Your task to perform on an android device: turn on wifi Image 0: 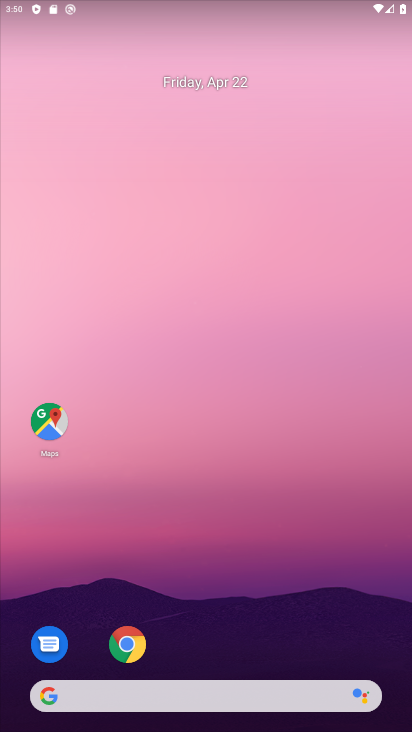
Step 0: click (136, 648)
Your task to perform on an android device: turn on wifi Image 1: 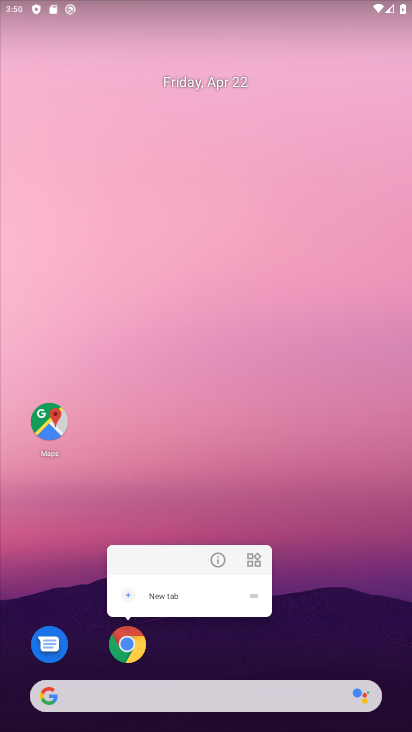
Step 1: drag from (246, 541) to (293, 277)
Your task to perform on an android device: turn on wifi Image 2: 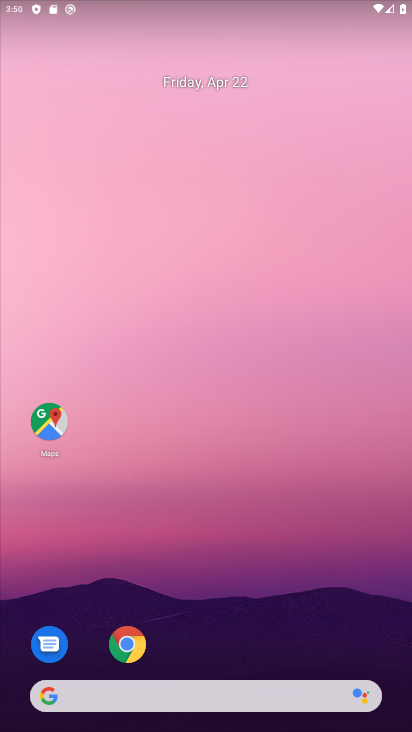
Step 2: drag from (188, 671) to (246, 356)
Your task to perform on an android device: turn on wifi Image 3: 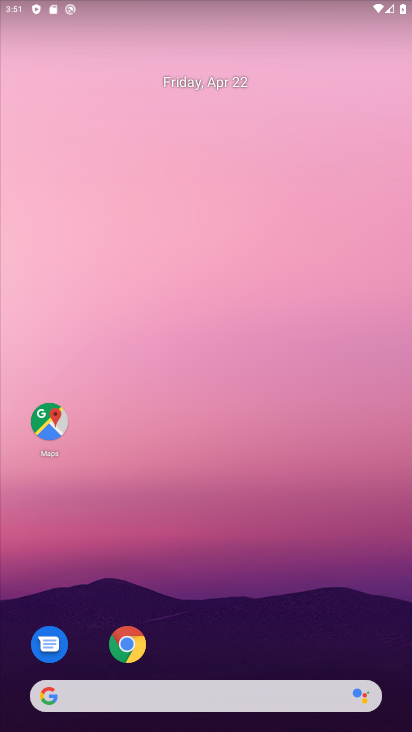
Step 3: drag from (195, 655) to (257, 360)
Your task to perform on an android device: turn on wifi Image 4: 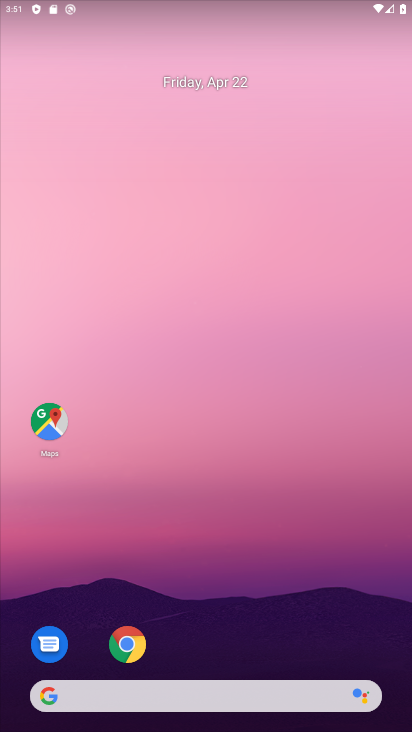
Step 4: drag from (225, 603) to (276, 296)
Your task to perform on an android device: turn on wifi Image 5: 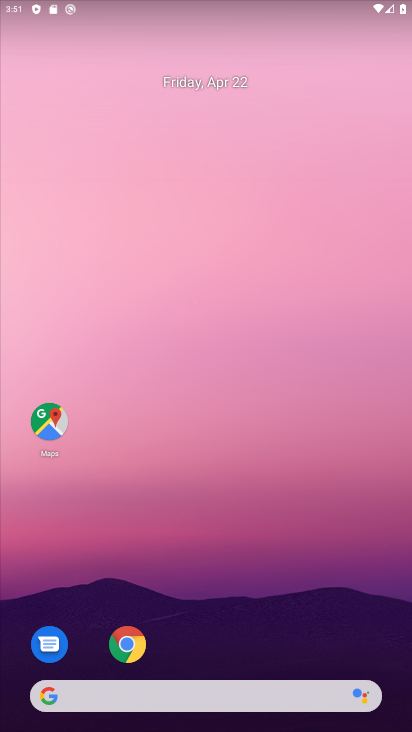
Step 5: drag from (219, 609) to (263, 263)
Your task to perform on an android device: turn on wifi Image 6: 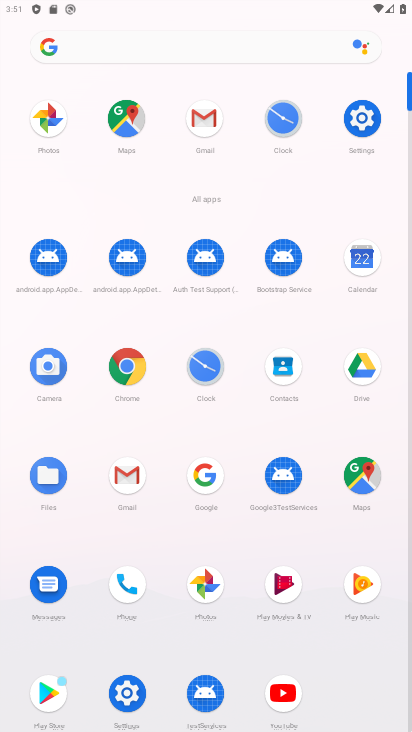
Step 6: click (370, 119)
Your task to perform on an android device: turn on wifi Image 7: 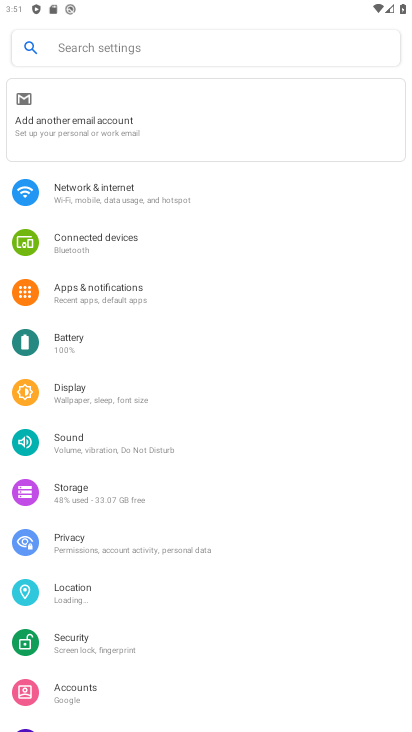
Step 7: click (104, 188)
Your task to perform on an android device: turn on wifi Image 8: 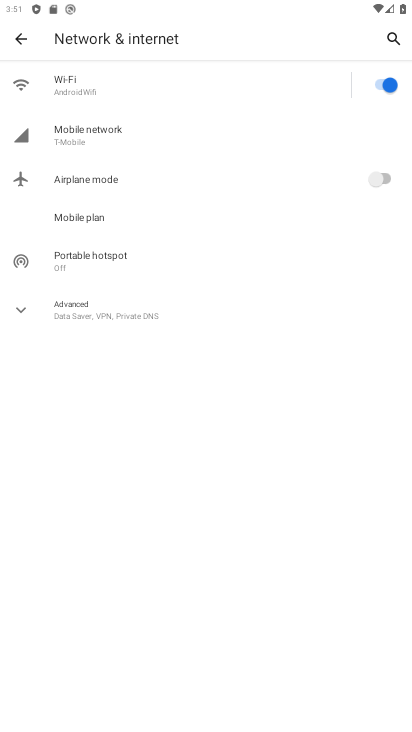
Step 8: task complete